Your task to perform on an android device: set the stopwatch Image 0: 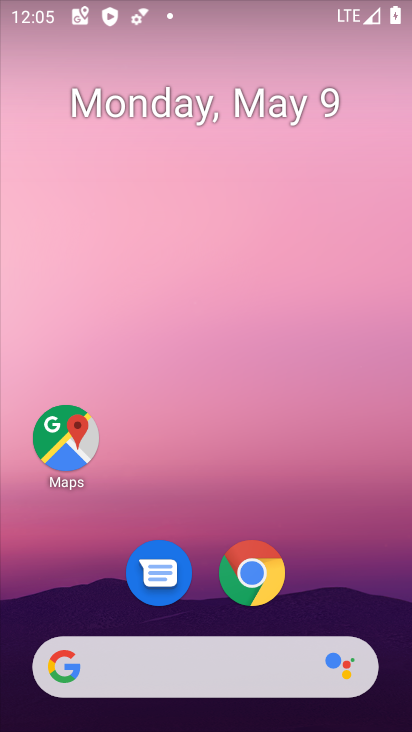
Step 0: drag from (356, 541) to (231, 15)
Your task to perform on an android device: set the stopwatch Image 1: 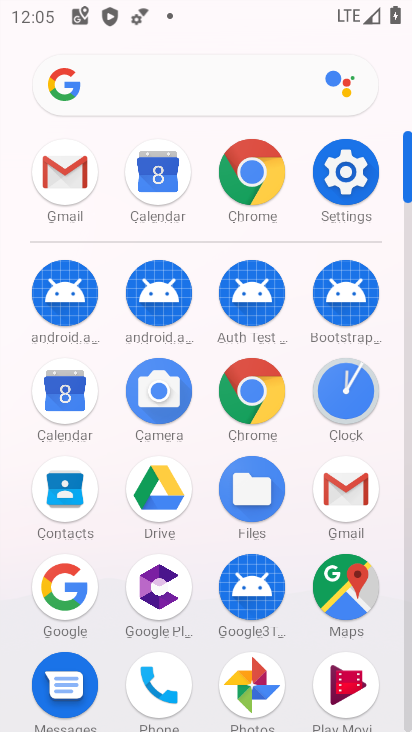
Step 1: drag from (23, 530) to (5, 193)
Your task to perform on an android device: set the stopwatch Image 2: 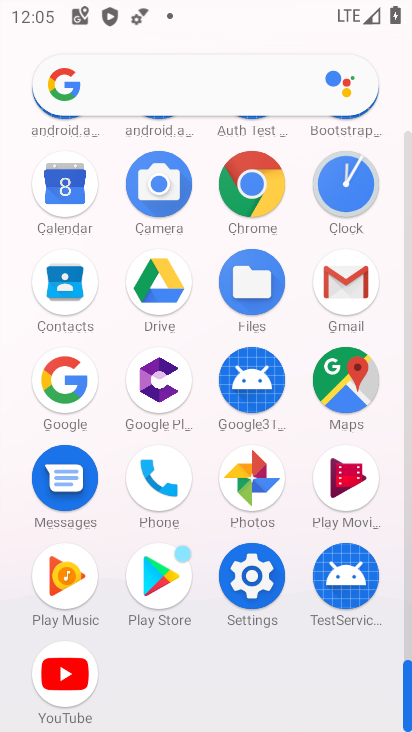
Step 2: click (350, 180)
Your task to perform on an android device: set the stopwatch Image 3: 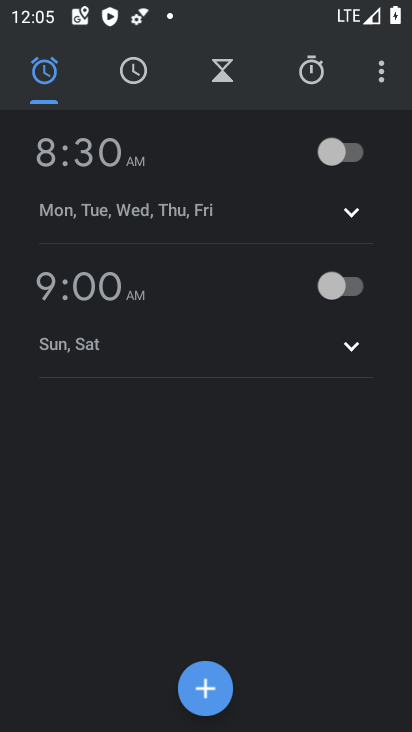
Step 3: drag from (377, 86) to (236, 143)
Your task to perform on an android device: set the stopwatch Image 4: 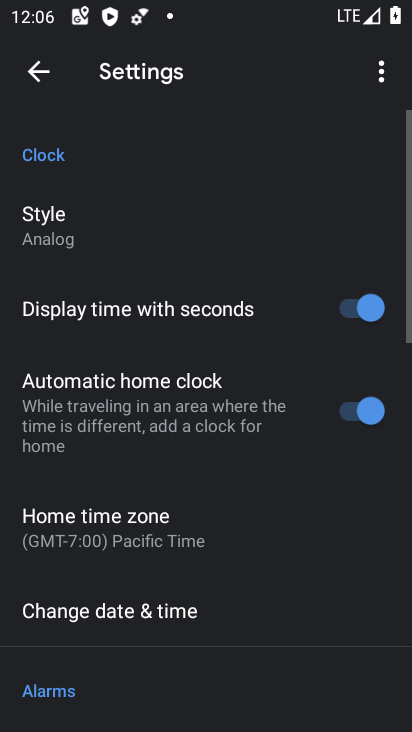
Step 4: drag from (185, 584) to (214, 130)
Your task to perform on an android device: set the stopwatch Image 5: 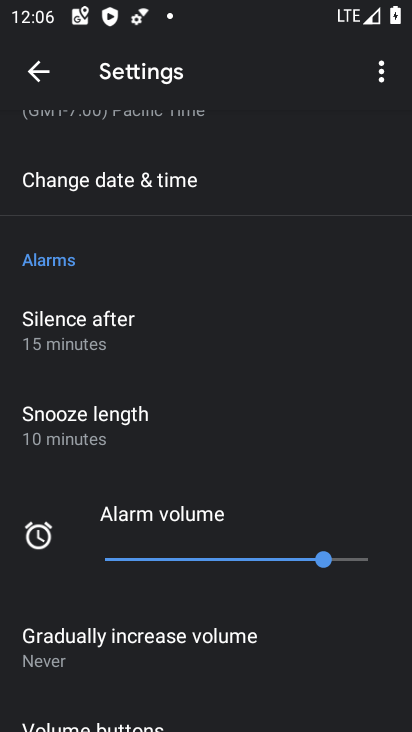
Step 5: drag from (185, 594) to (198, 156)
Your task to perform on an android device: set the stopwatch Image 6: 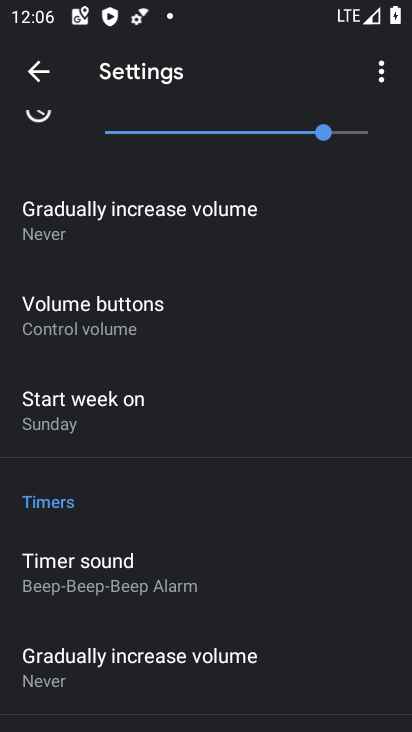
Step 6: drag from (230, 547) to (248, 134)
Your task to perform on an android device: set the stopwatch Image 7: 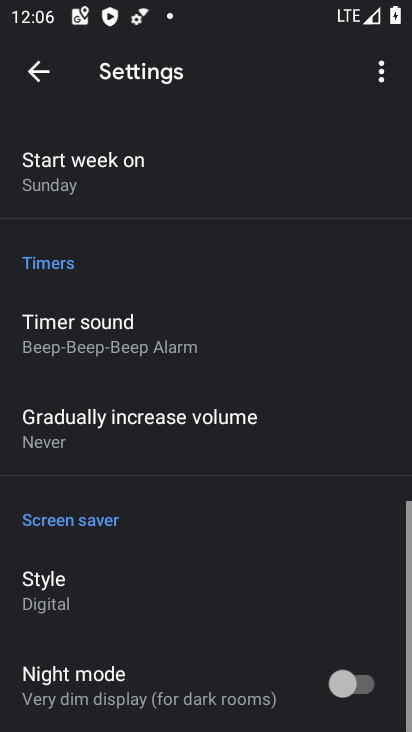
Step 7: drag from (205, 531) to (203, 114)
Your task to perform on an android device: set the stopwatch Image 8: 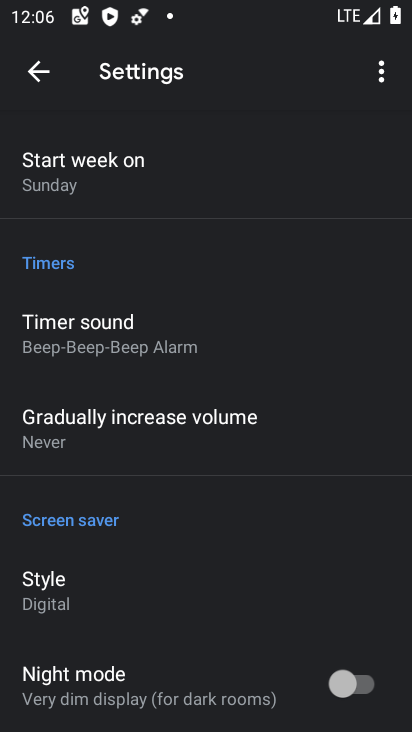
Step 8: drag from (143, 643) to (196, 260)
Your task to perform on an android device: set the stopwatch Image 9: 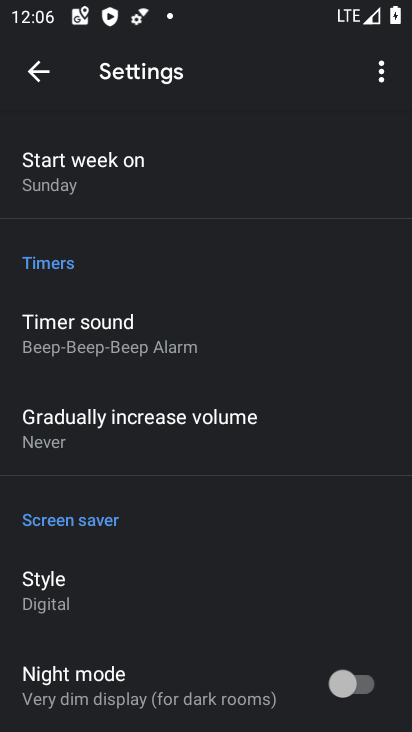
Step 9: drag from (177, 277) to (216, 567)
Your task to perform on an android device: set the stopwatch Image 10: 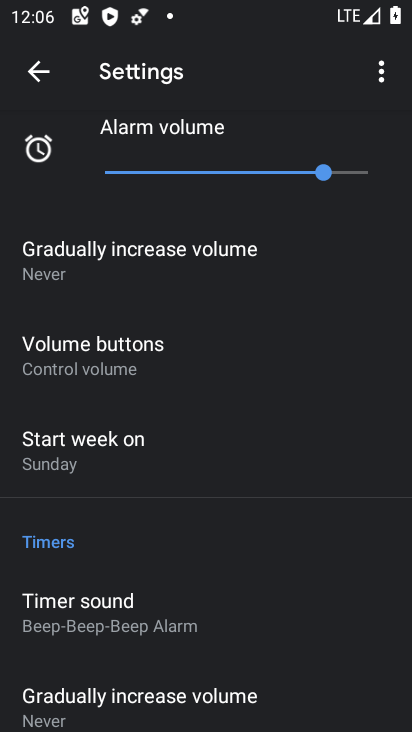
Step 10: click (234, 604)
Your task to perform on an android device: set the stopwatch Image 11: 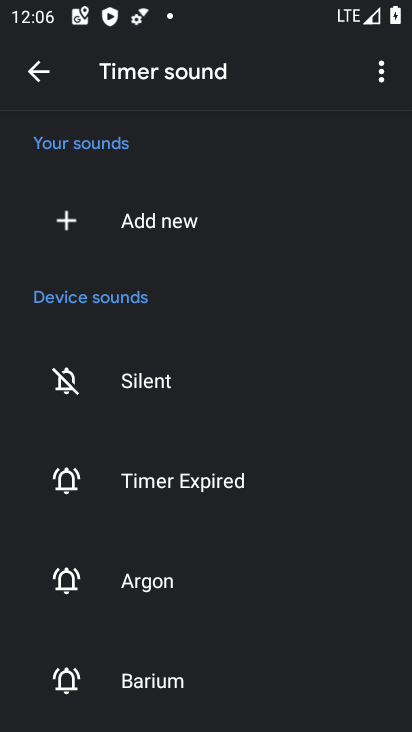
Step 11: click (39, 77)
Your task to perform on an android device: set the stopwatch Image 12: 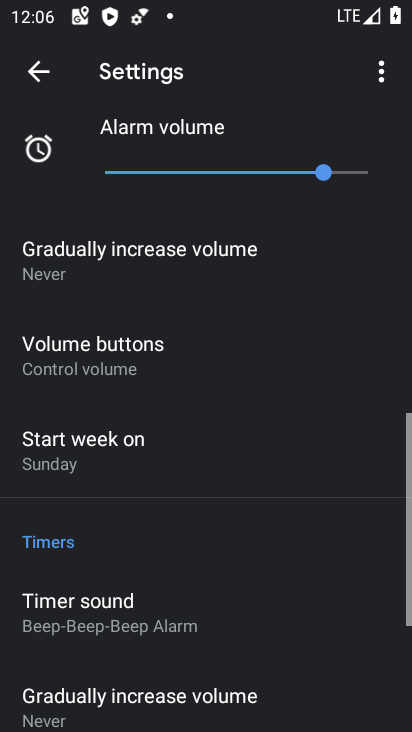
Step 12: drag from (257, 282) to (282, 629)
Your task to perform on an android device: set the stopwatch Image 13: 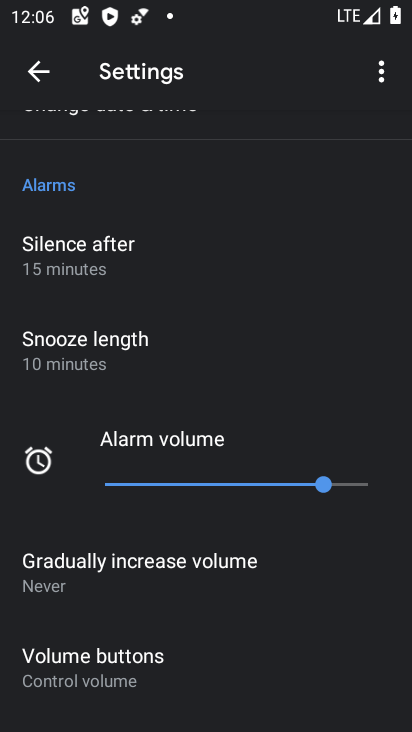
Step 13: drag from (209, 240) to (234, 590)
Your task to perform on an android device: set the stopwatch Image 14: 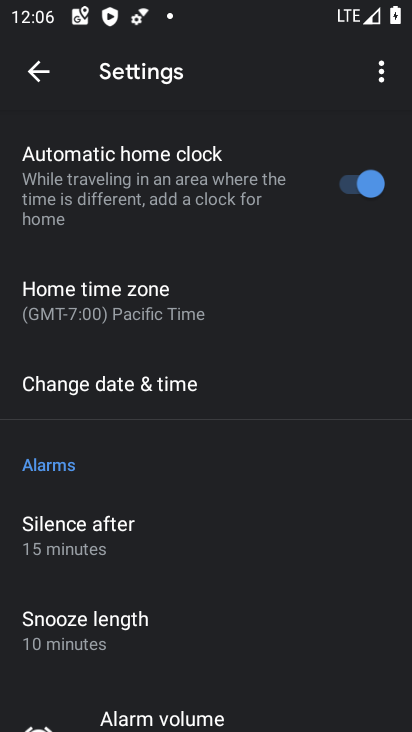
Step 14: drag from (199, 216) to (212, 605)
Your task to perform on an android device: set the stopwatch Image 15: 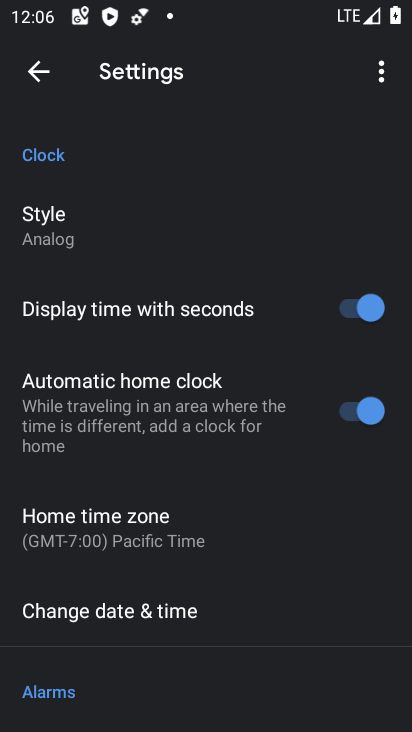
Step 15: drag from (196, 558) to (192, 275)
Your task to perform on an android device: set the stopwatch Image 16: 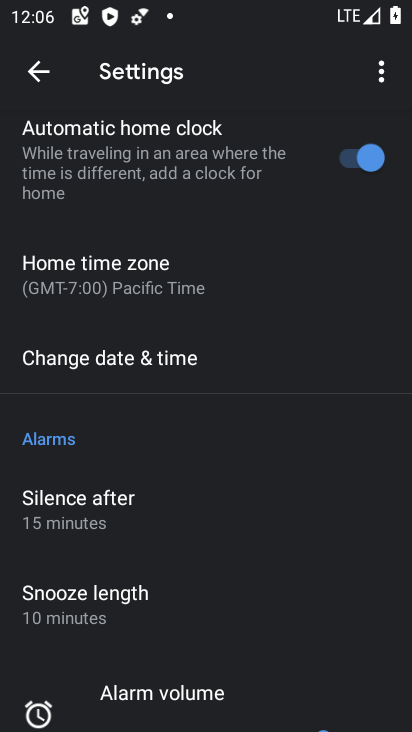
Step 16: click (32, 79)
Your task to perform on an android device: set the stopwatch Image 17: 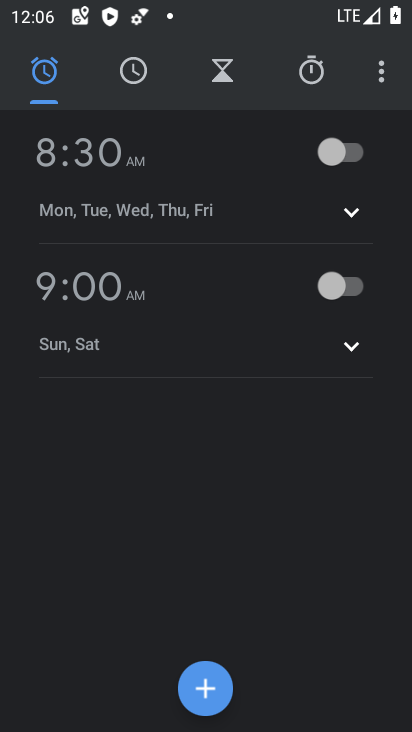
Step 17: click (381, 71)
Your task to perform on an android device: set the stopwatch Image 18: 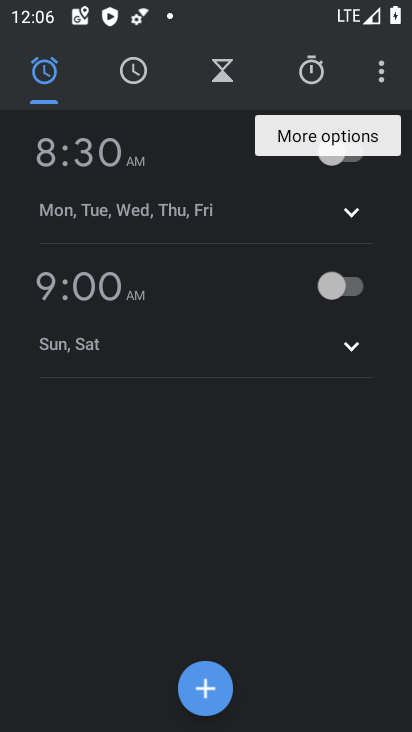
Step 18: click (166, 526)
Your task to perform on an android device: set the stopwatch Image 19: 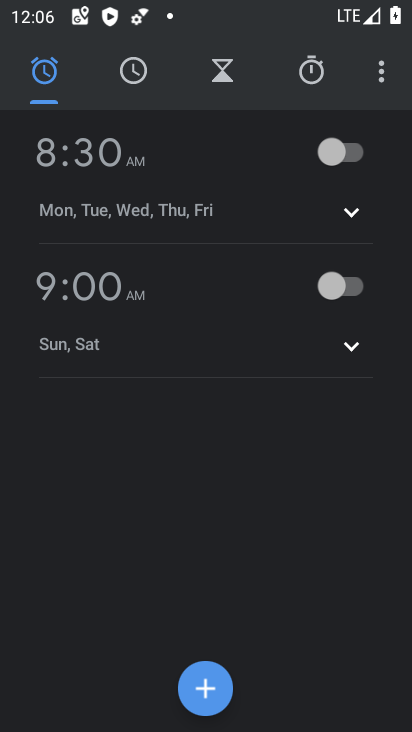
Step 19: click (228, 77)
Your task to perform on an android device: set the stopwatch Image 20: 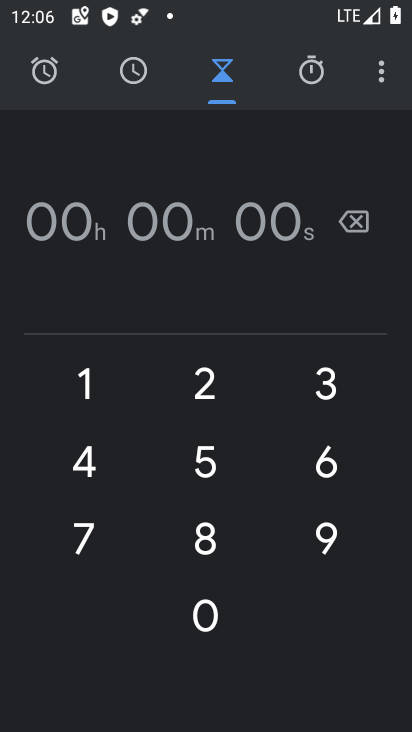
Step 20: click (310, 69)
Your task to perform on an android device: set the stopwatch Image 21: 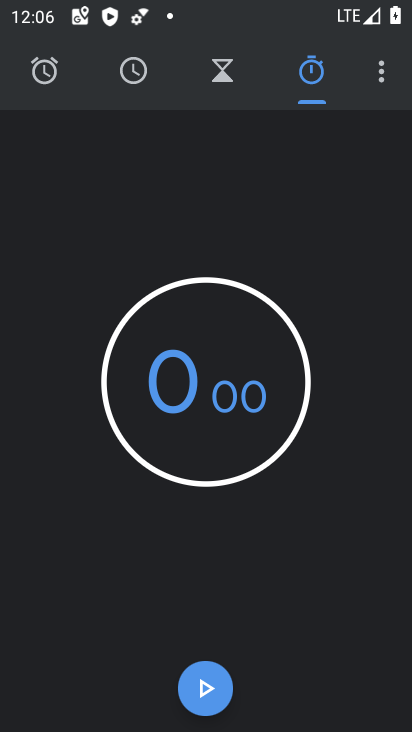
Step 21: click (207, 693)
Your task to perform on an android device: set the stopwatch Image 22: 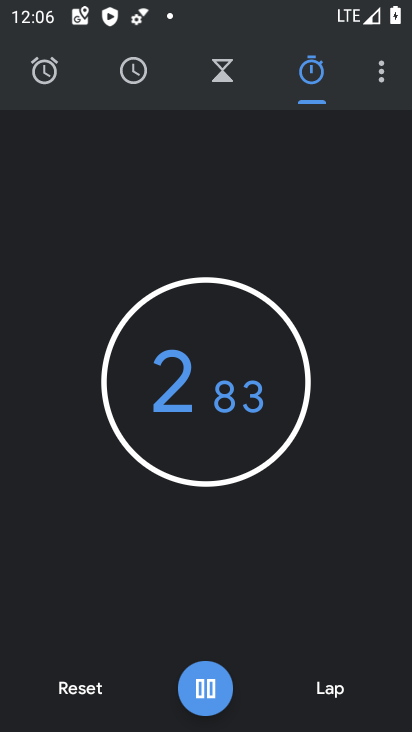
Step 22: task complete